Your task to perform on an android device: set default search engine in the chrome app Image 0: 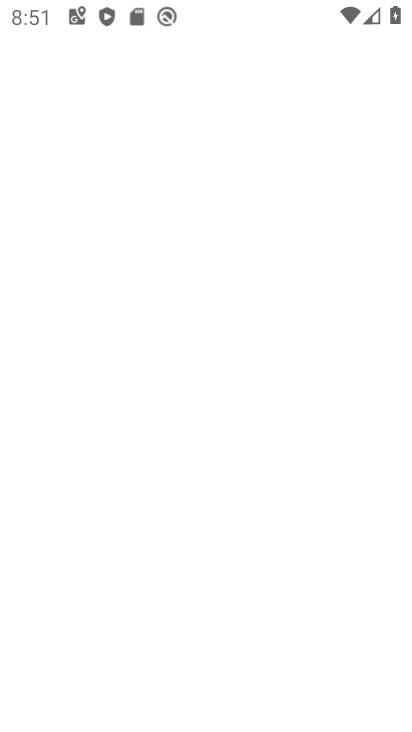
Step 0: drag from (327, 661) to (162, 258)
Your task to perform on an android device: set default search engine in the chrome app Image 1: 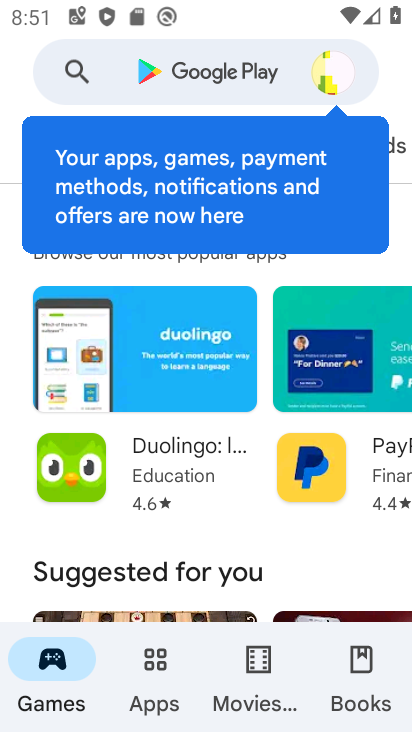
Step 1: press back button
Your task to perform on an android device: set default search engine in the chrome app Image 2: 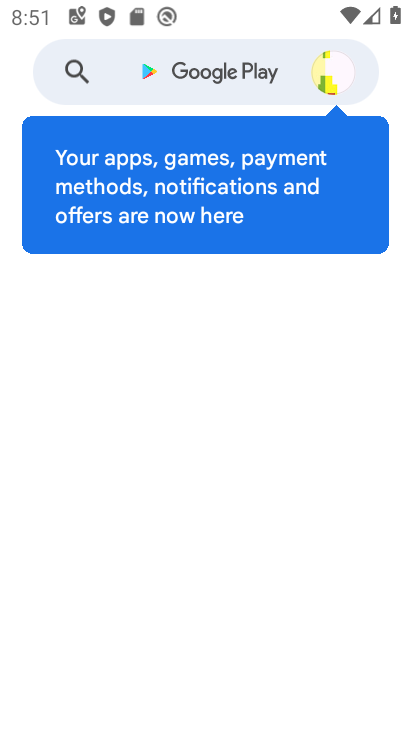
Step 2: press back button
Your task to perform on an android device: set default search engine in the chrome app Image 3: 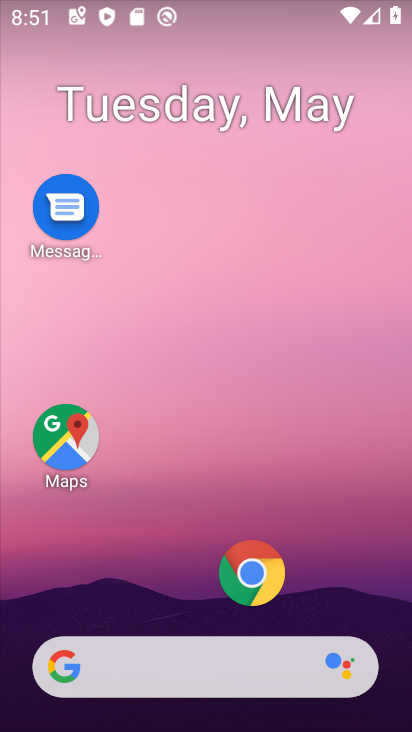
Step 3: drag from (350, 718) to (177, 265)
Your task to perform on an android device: set default search engine in the chrome app Image 4: 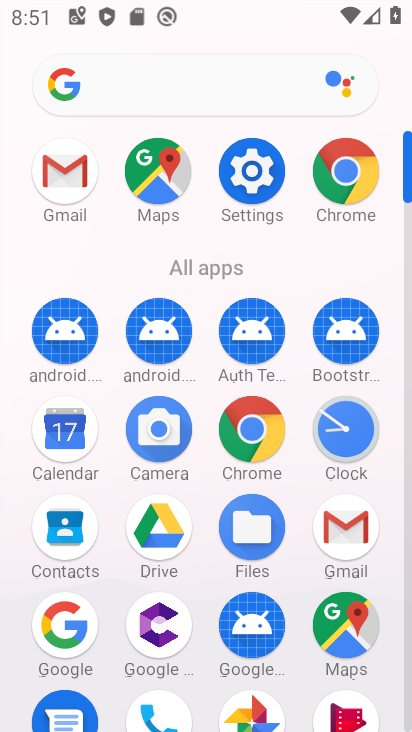
Step 4: click (258, 437)
Your task to perform on an android device: set default search engine in the chrome app Image 5: 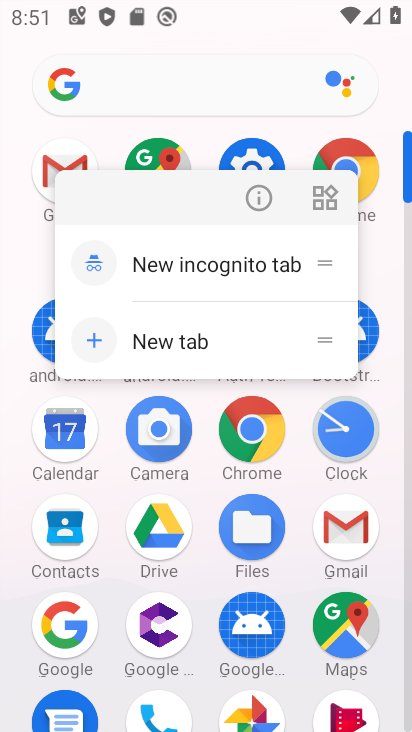
Step 5: click (259, 424)
Your task to perform on an android device: set default search engine in the chrome app Image 6: 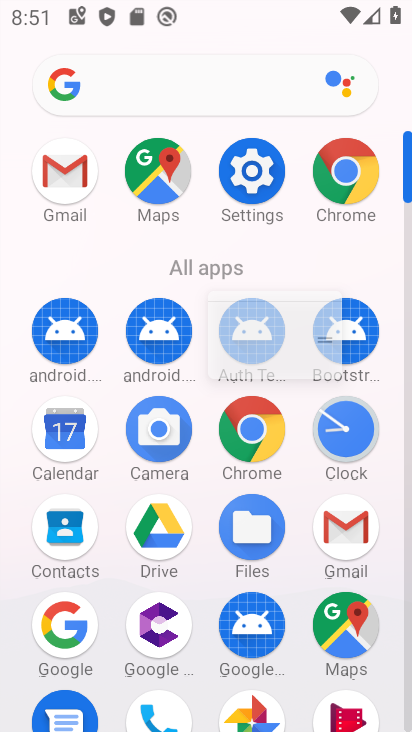
Step 6: click (256, 420)
Your task to perform on an android device: set default search engine in the chrome app Image 7: 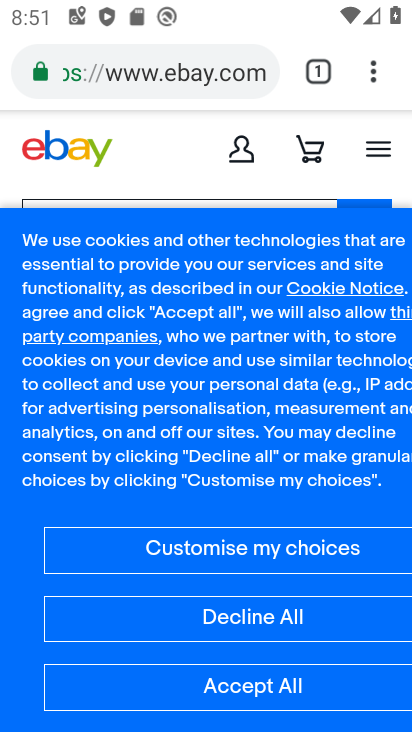
Step 7: click (246, 426)
Your task to perform on an android device: set default search engine in the chrome app Image 8: 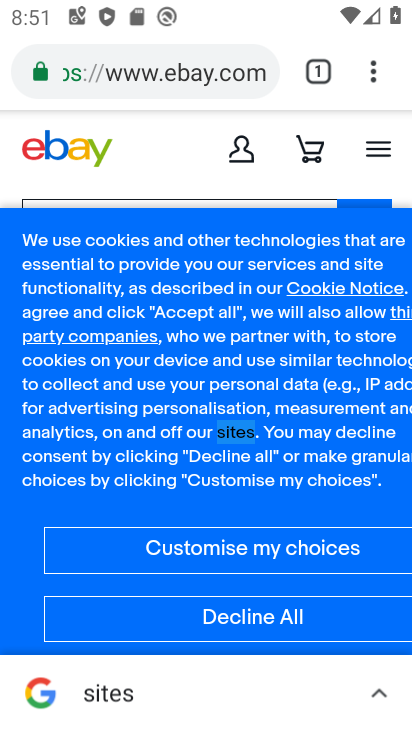
Step 8: drag from (373, 64) to (128, 570)
Your task to perform on an android device: set default search engine in the chrome app Image 9: 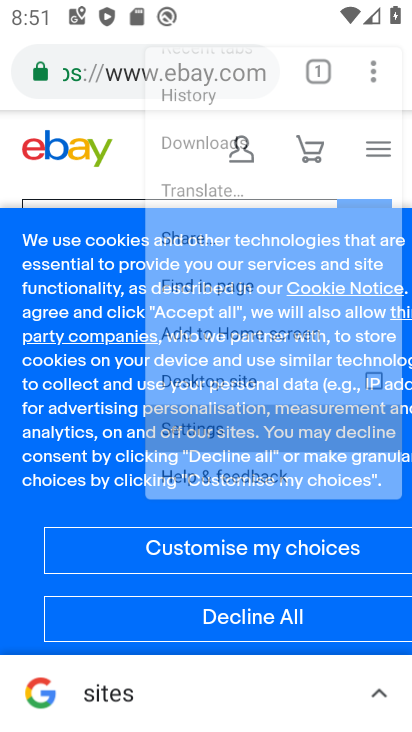
Step 9: click (128, 570)
Your task to perform on an android device: set default search engine in the chrome app Image 10: 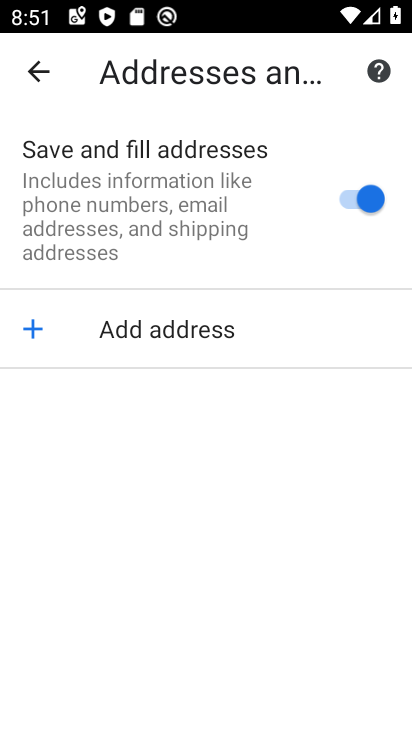
Step 10: click (22, 75)
Your task to perform on an android device: set default search engine in the chrome app Image 11: 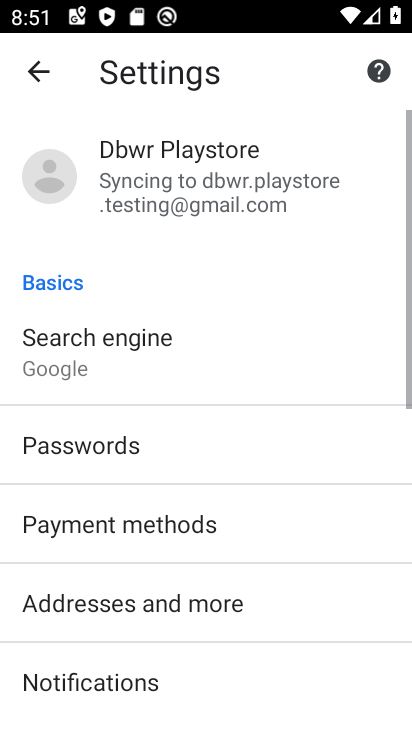
Step 11: click (76, 354)
Your task to perform on an android device: set default search engine in the chrome app Image 12: 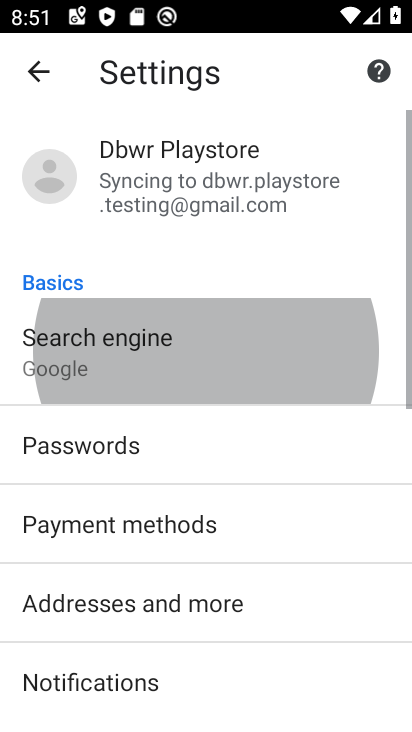
Step 12: click (80, 363)
Your task to perform on an android device: set default search engine in the chrome app Image 13: 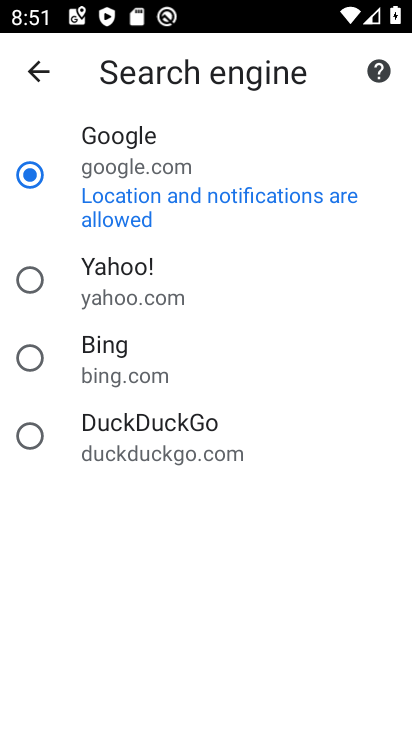
Step 13: task complete